Your task to perform on an android device: Search for pizza restaurants on Maps Image 0: 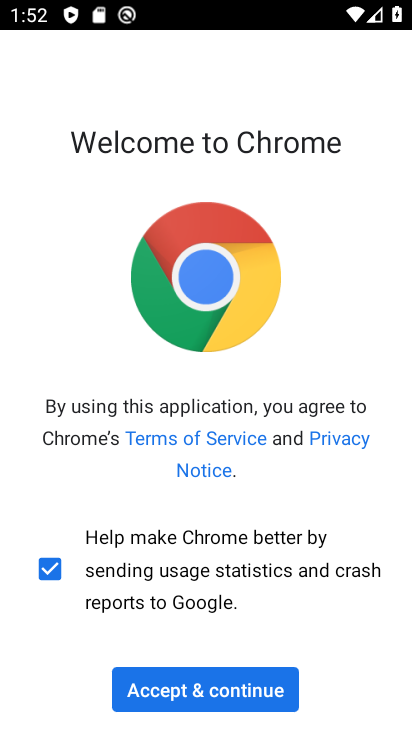
Step 0: click (218, 683)
Your task to perform on an android device: Search for pizza restaurants on Maps Image 1: 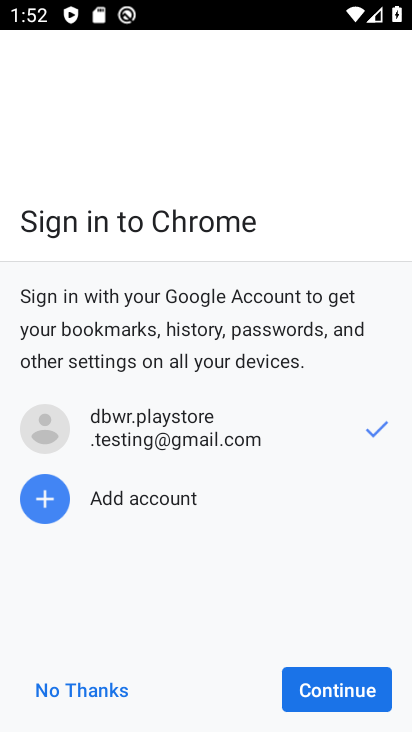
Step 1: click (378, 685)
Your task to perform on an android device: Search for pizza restaurants on Maps Image 2: 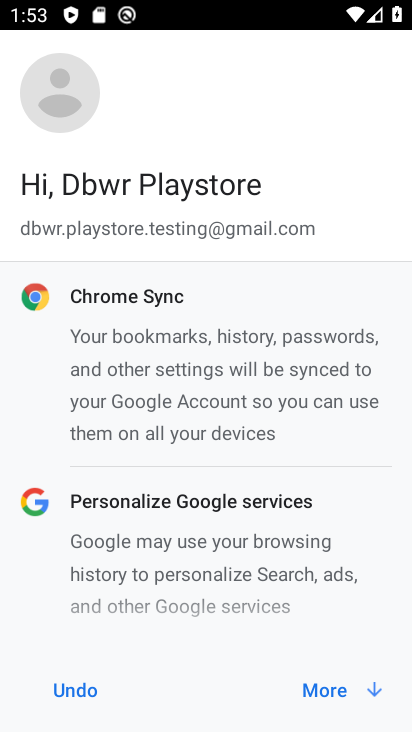
Step 2: click (335, 696)
Your task to perform on an android device: Search for pizza restaurants on Maps Image 3: 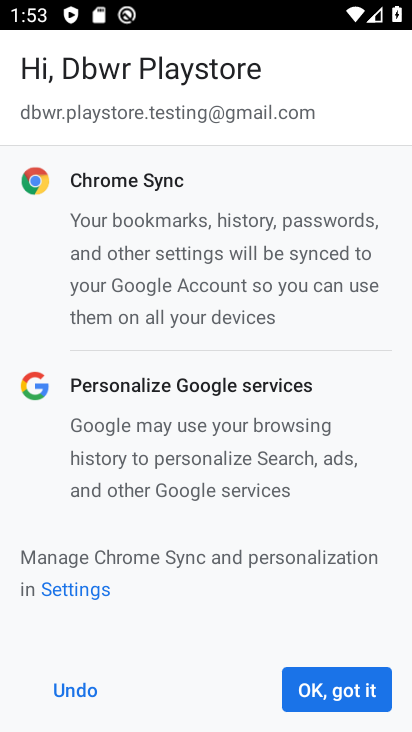
Step 3: click (343, 676)
Your task to perform on an android device: Search for pizza restaurants on Maps Image 4: 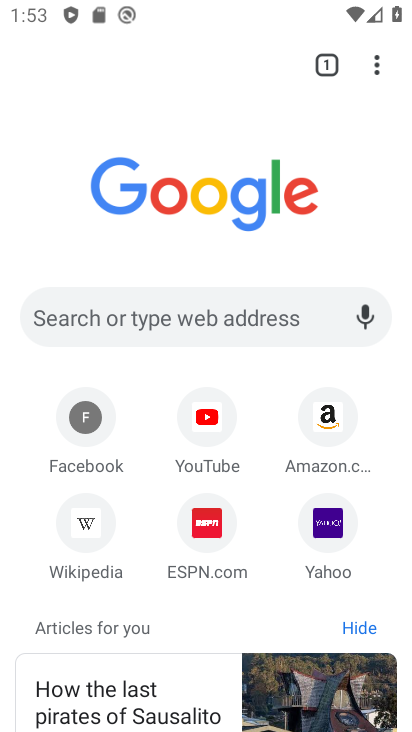
Step 4: press back button
Your task to perform on an android device: Search for pizza restaurants on Maps Image 5: 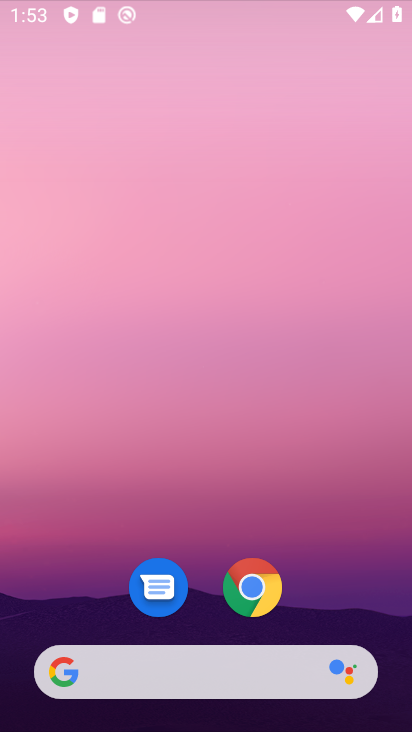
Step 5: drag from (325, 629) to (185, 30)
Your task to perform on an android device: Search for pizza restaurants on Maps Image 6: 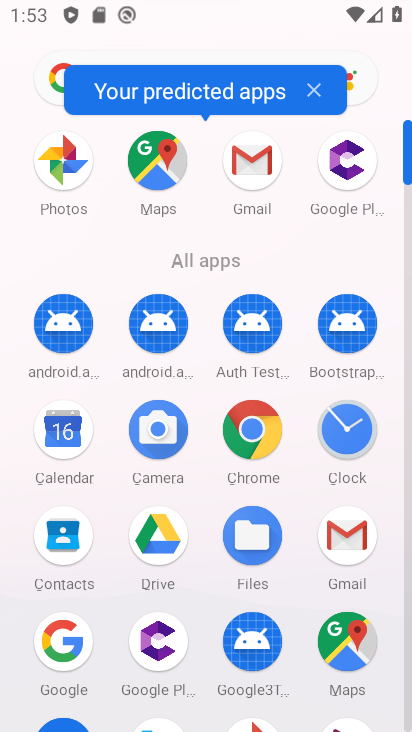
Step 6: click (151, 163)
Your task to perform on an android device: Search for pizza restaurants on Maps Image 7: 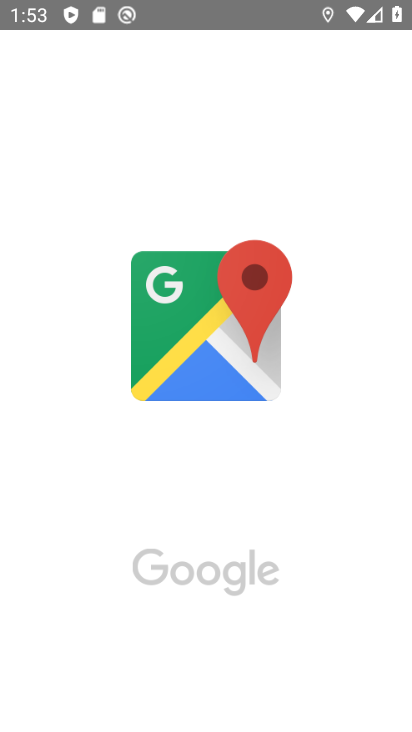
Step 7: drag from (153, 359) to (165, 327)
Your task to perform on an android device: Search for pizza restaurants on Maps Image 8: 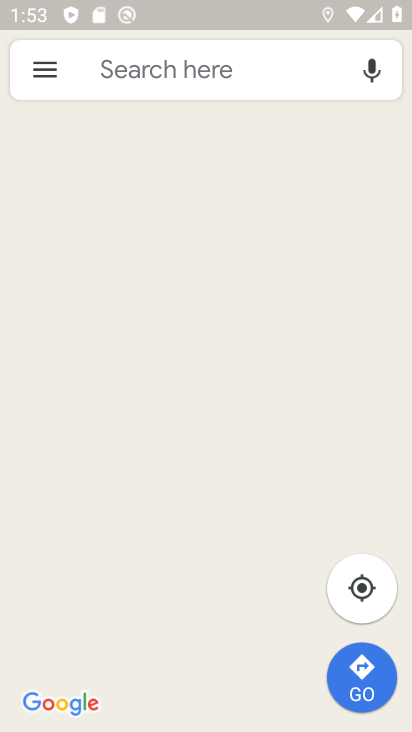
Step 8: click (166, 321)
Your task to perform on an android device: Search for pizza restaurants on Maps Image 9: 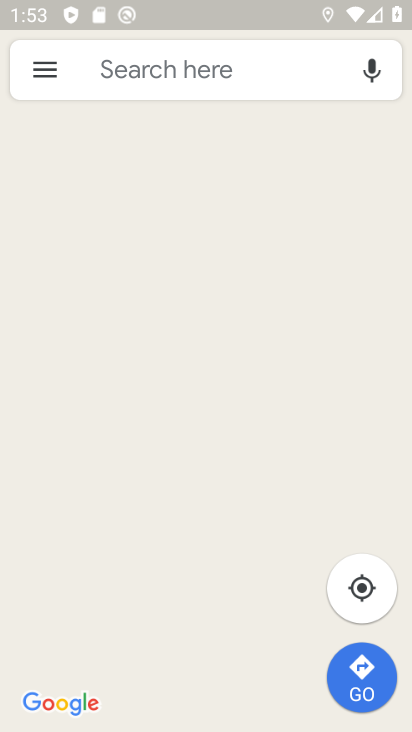
Step 9: click (169, 321)
Your task to perform on an android device: Search for pizza restaurants on Maps Image 10: 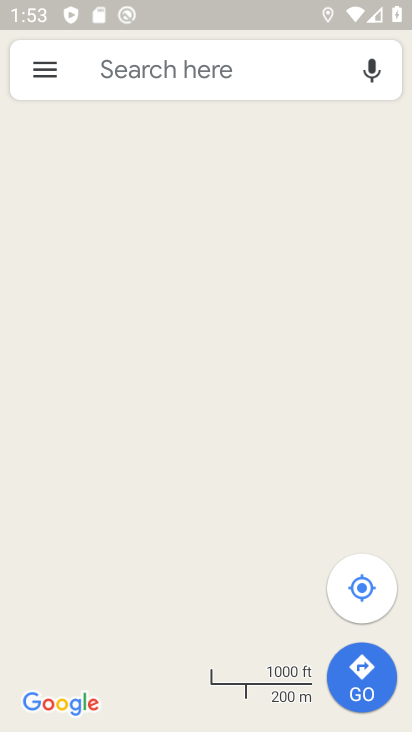
Step 10: click (172, 322)
Your task to perform on an android device: Search for pizza restaurants on Maps Image 11: 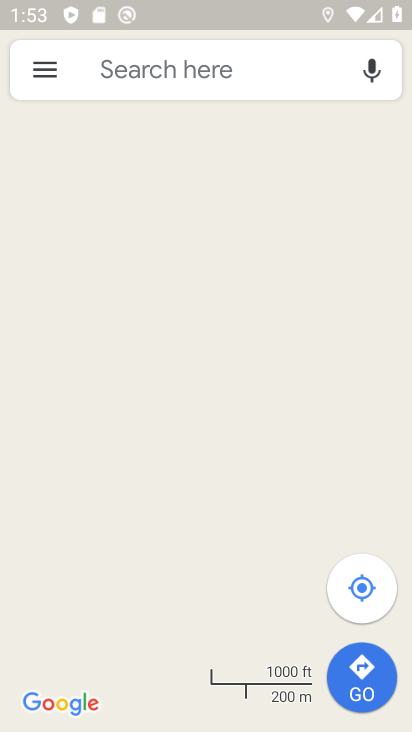
Step 11: click (117, 63)
Your task to perform on an android device: Search for pizza restaurants on Maps Image 12: 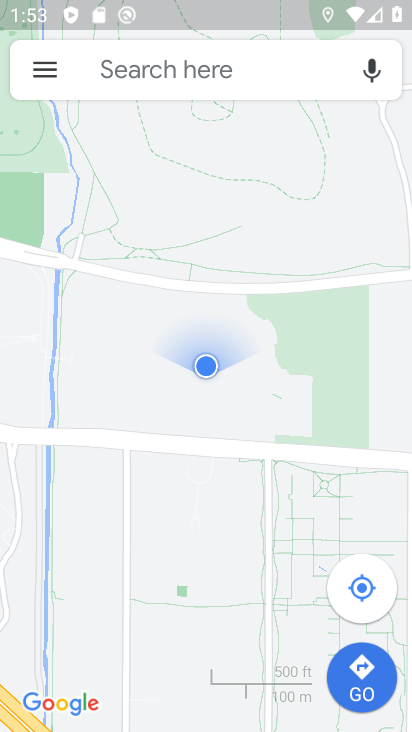
Step 12: click (116, 73)
Your task to perform on an android device: Search for pizza restaurants on Maps Image 13: 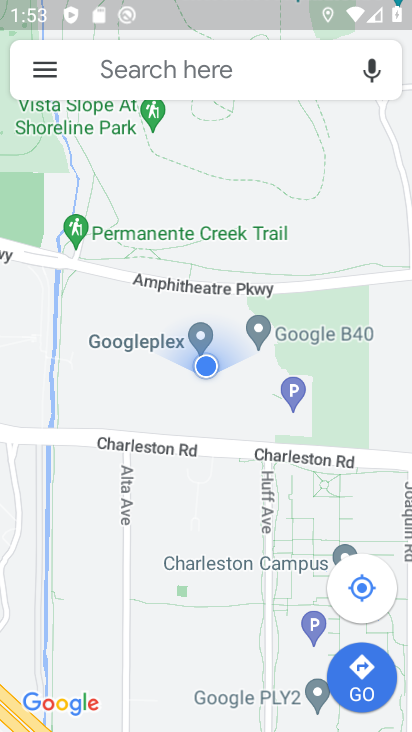
Step 13: click (116, 73)
Your task to perform on an android device: Search for pizza restaurants on Maps Image 14: 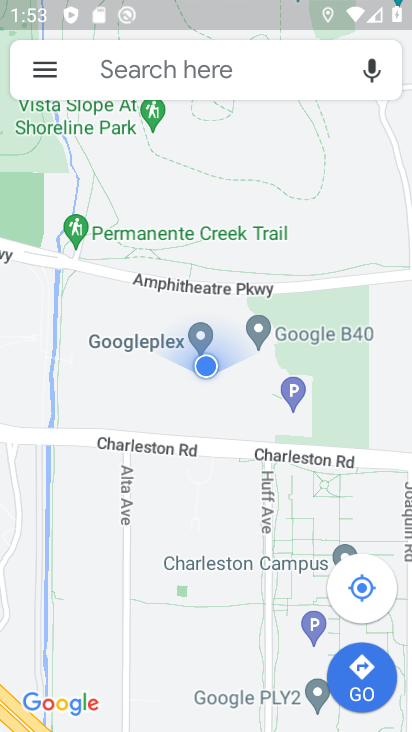
Step 14: click (116, 73)
Your task to perform on an android device: Search for pizza restaurants on Maps Image 15: 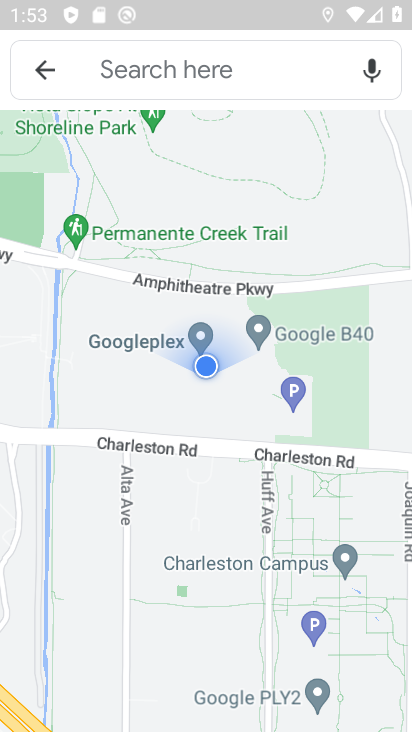
Step 15: click (116, 73)
Your task to perform on an android device: Search for pizza restaurants on Maps Image 16: 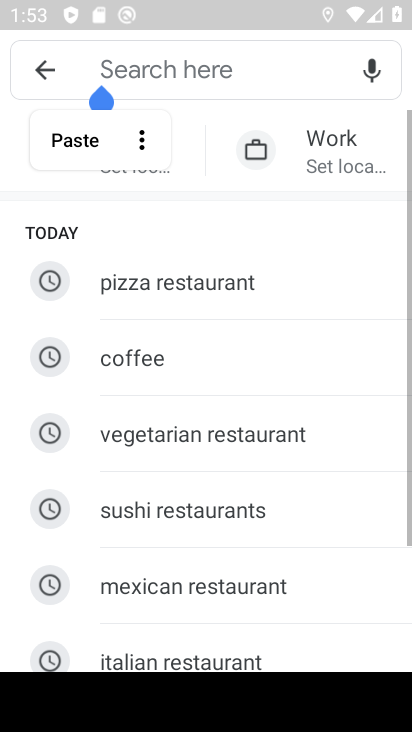
Step 16: click (144, 283)
Your task to perform on an android device: Search for pizza restaurants on Maps Image 17: 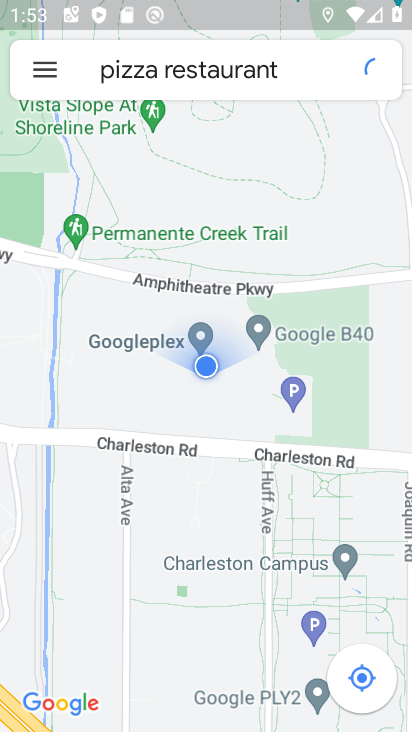
Step 17: task complete